Your task to perform on an android device: Search for "lg ultragear" on costco, select the first entry, and add it to the cart. Image 0: 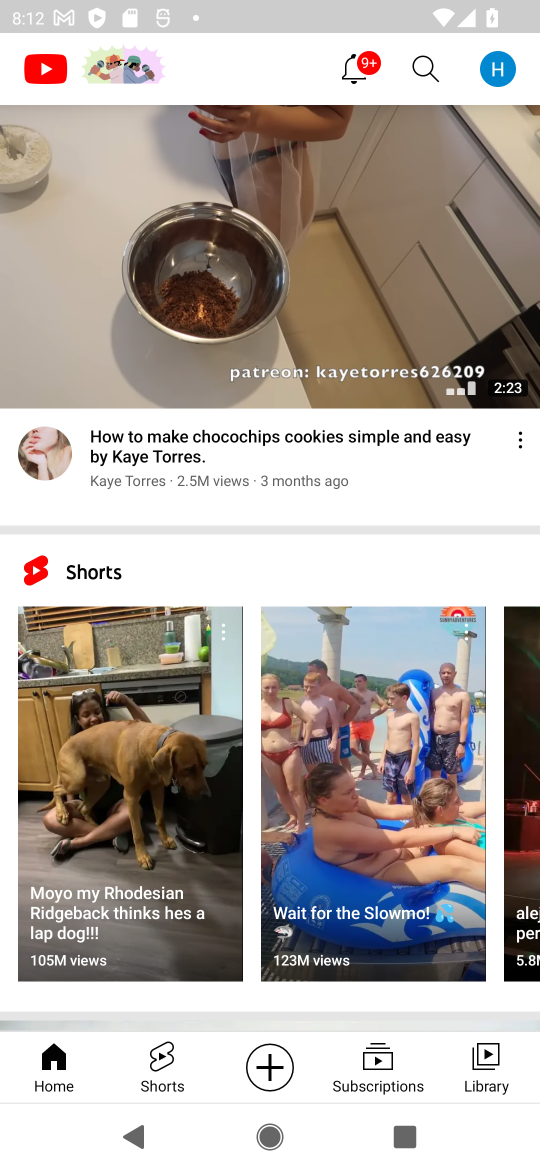
Step 0: press home button
Your task to perform on an android device: Search for "lg ultragear" on costco, select the first entry, and add it to the cart. Image 1: 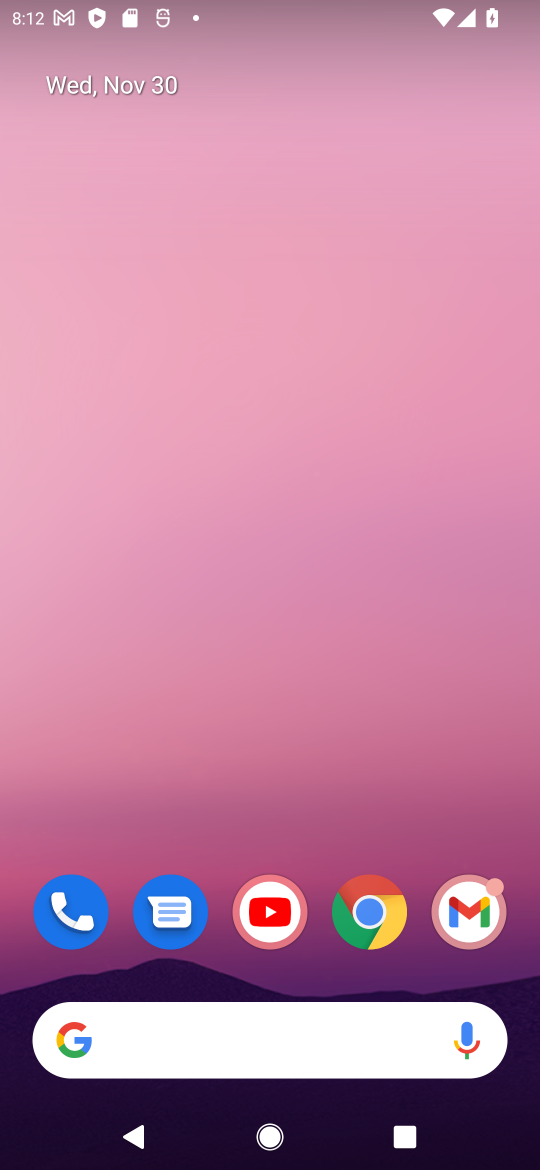
Step 1: click (281, 1010)
Your task to perform on an android device: Search for "lg ultragear" on costco, select the first entry, and add it to the cart. Image 2: 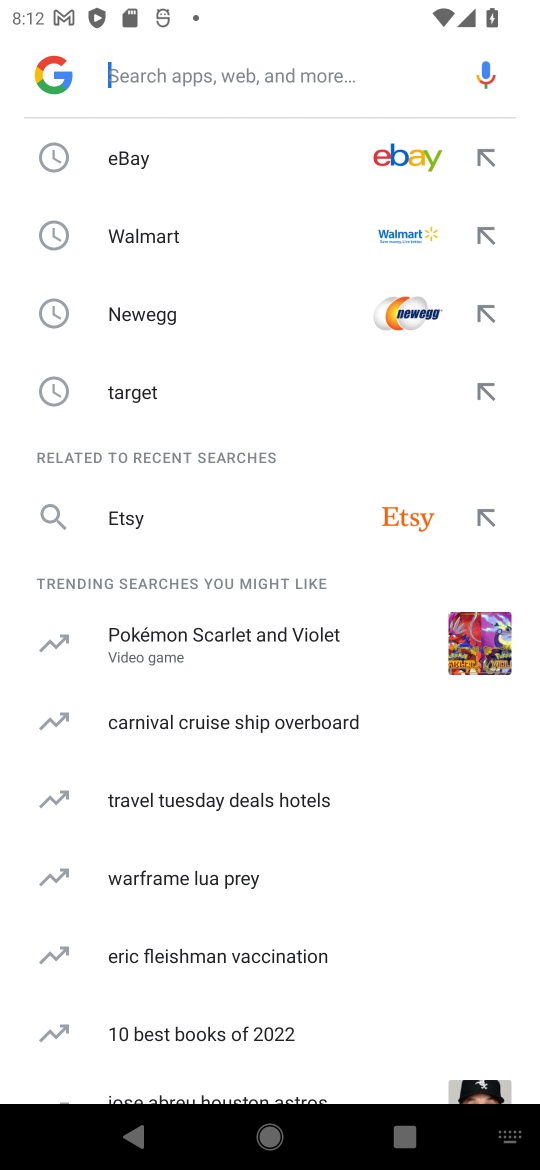
Step 2: type "lg ultragear"
Your task to perform on an android device: Search for "lg ultragear" on costco, select the first entry, and add it to the cart. Image 3: 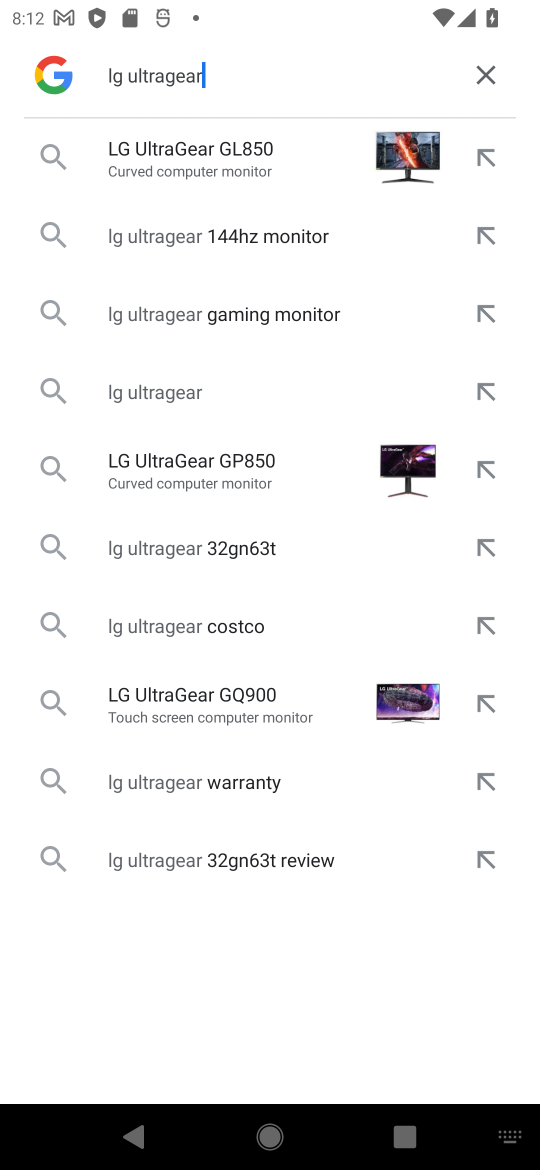
Step 3: click (487, 76)
Your task to perform on an android device: Search for "lg ultragear" on costco, select the first entry, and add it to the cart. Image 4: 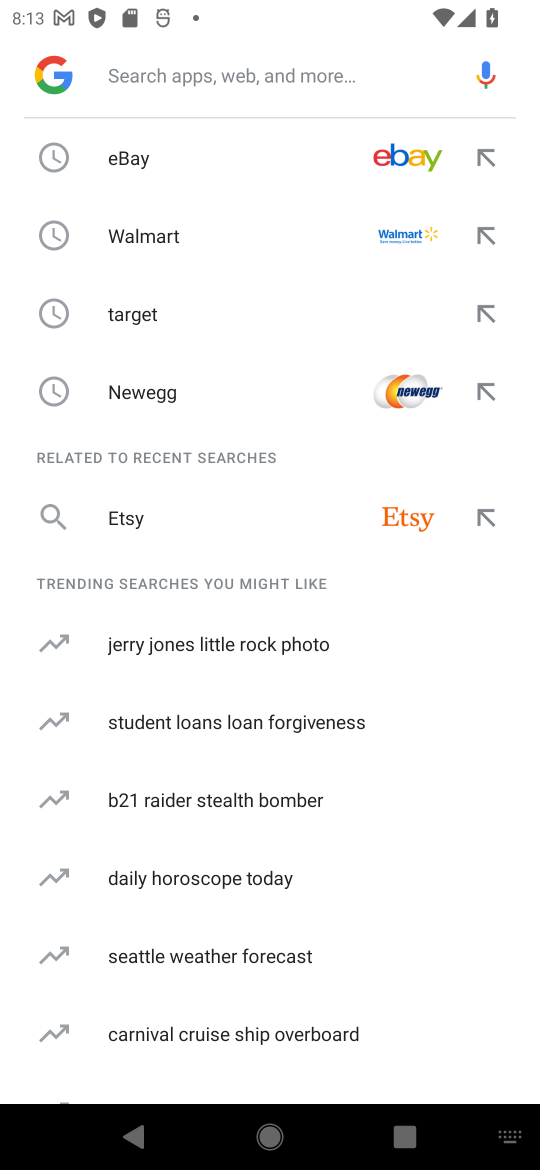
Step 4: type "costco"
Your task to perform on an android device: Search for "lg ultragear" on costco, select the first entry, and add it to the cart. Image 5: 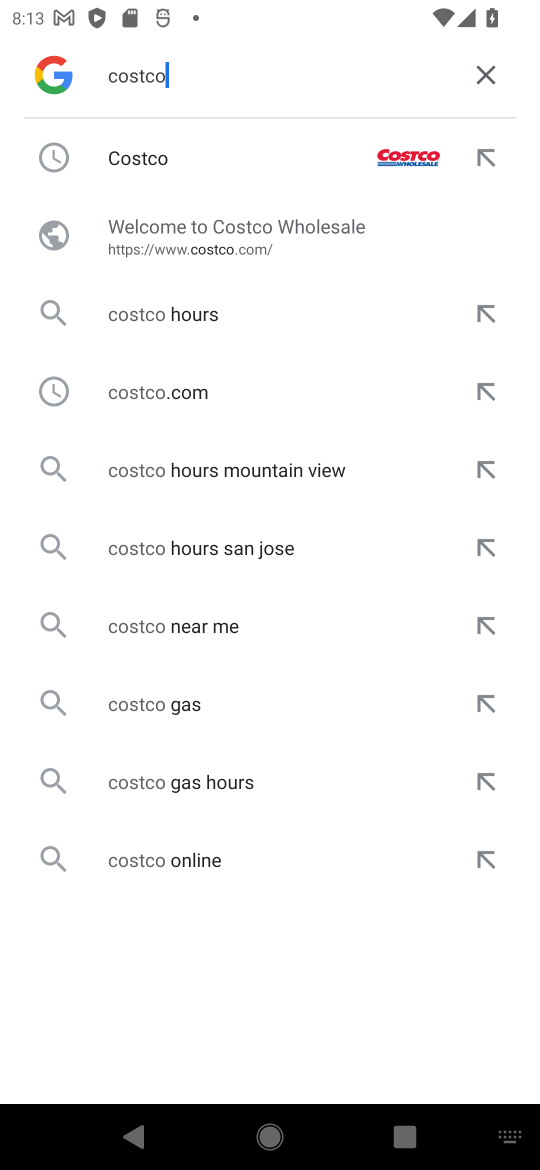
Step 5: click (276, 164)
Your task to perform on an android device: Search for "lg ultragear" on costco, select the first entry, and add it to the cart. Image 6: 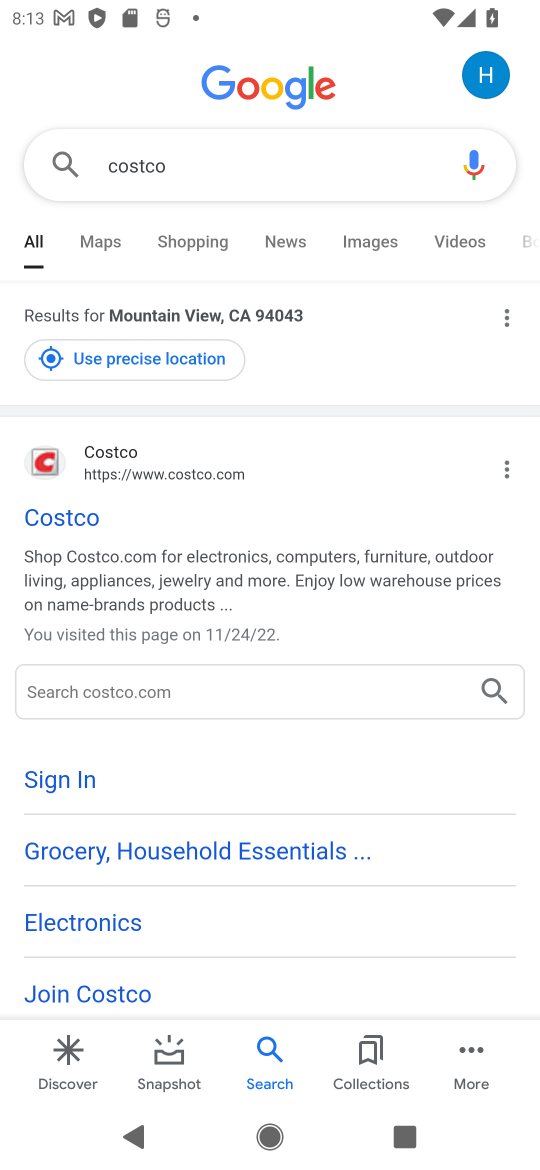
Step 6: click (46, 527)
Your task to perform on an android device: Search for "lg ultragear" on costco, select the first entry, and add it to the cart. Image 7: 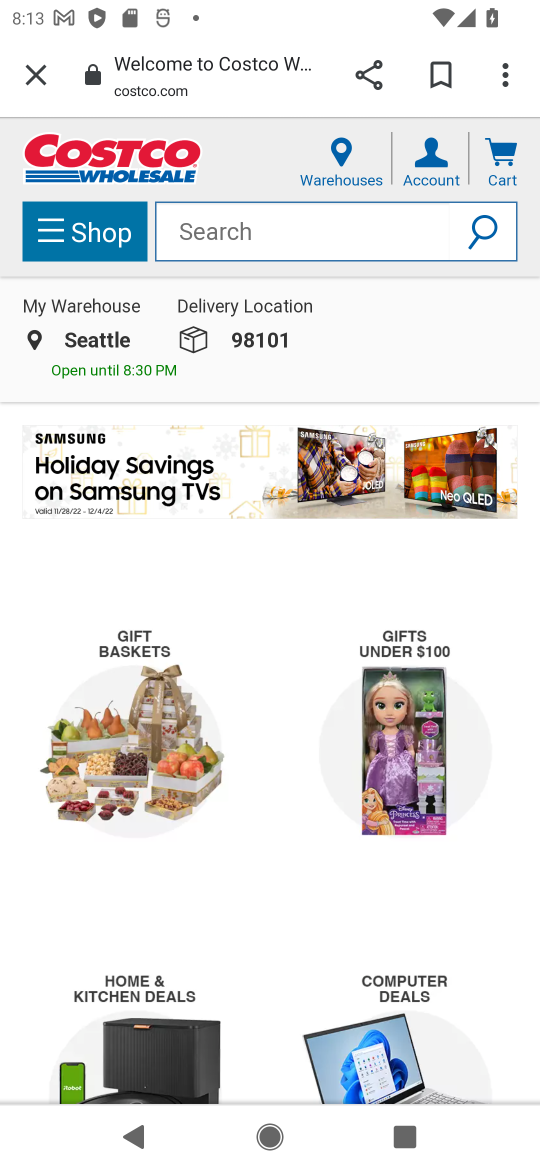
Step 7: click (311, 226)
Your task to perform on an android device: Search for "lg ultragear" on costco, select the first entry, and add it to the cart. Image 8: 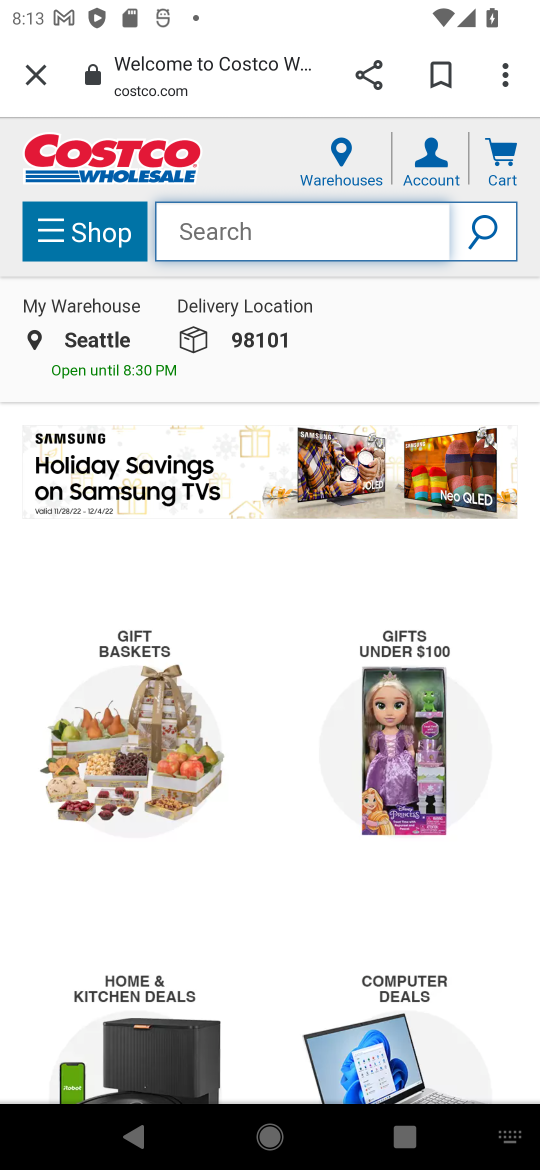
Step 8: type "lg ultragear"
Your task to perform on an android device: Search for "lg ultragear" on costco, select the first entry, and add it to the cart. Image 9: 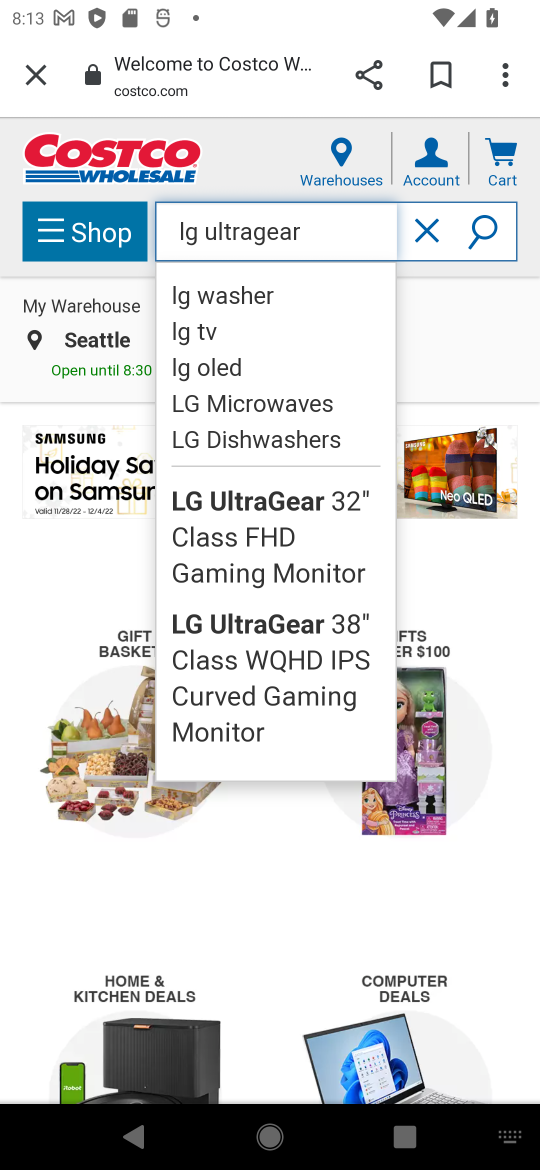
Step 9: click (480, 228)
Your task to perform on an android device: Search for "lg ultragear" on costco, select the first entry, and add it to the cart. Image 10: 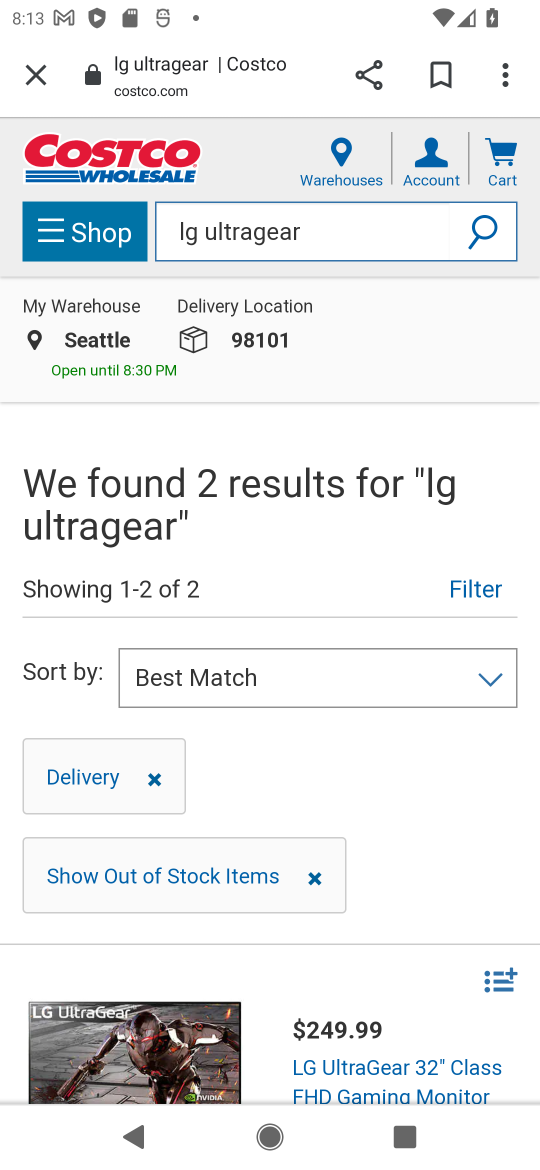
Step 10: drag from (335, 953) to (368, 524)
Your task to perform on an android device: Search for "lg ultragear" on costco, select the first entry, and add it to the cart. Image 11: 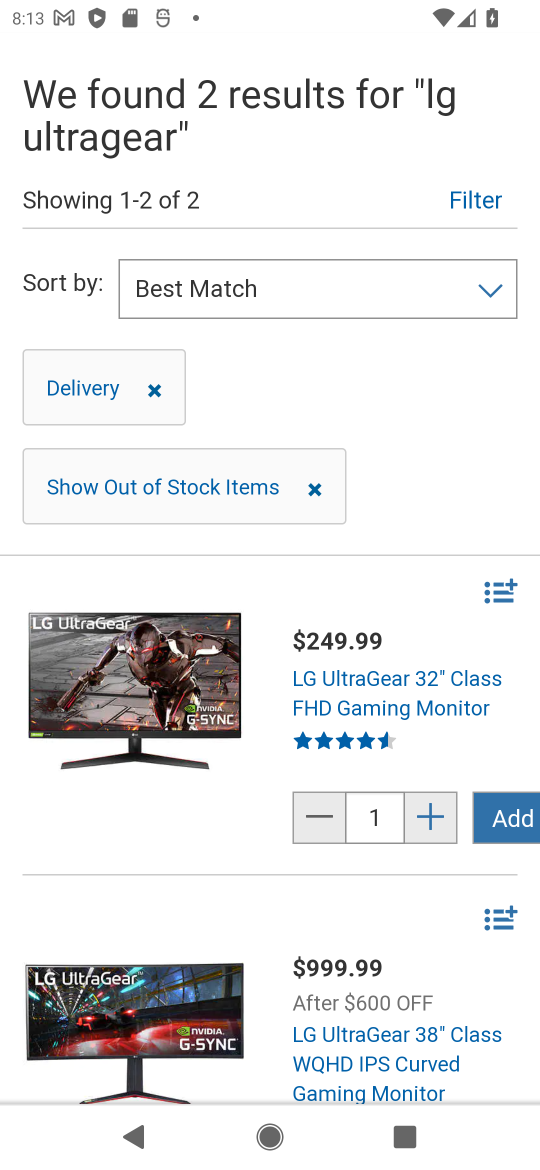
Step 11: click (506, 835)
Your task to perform on an android device: Search for "lg ultragear" on costco, select the first entry, and add it to the cart. Image 12: 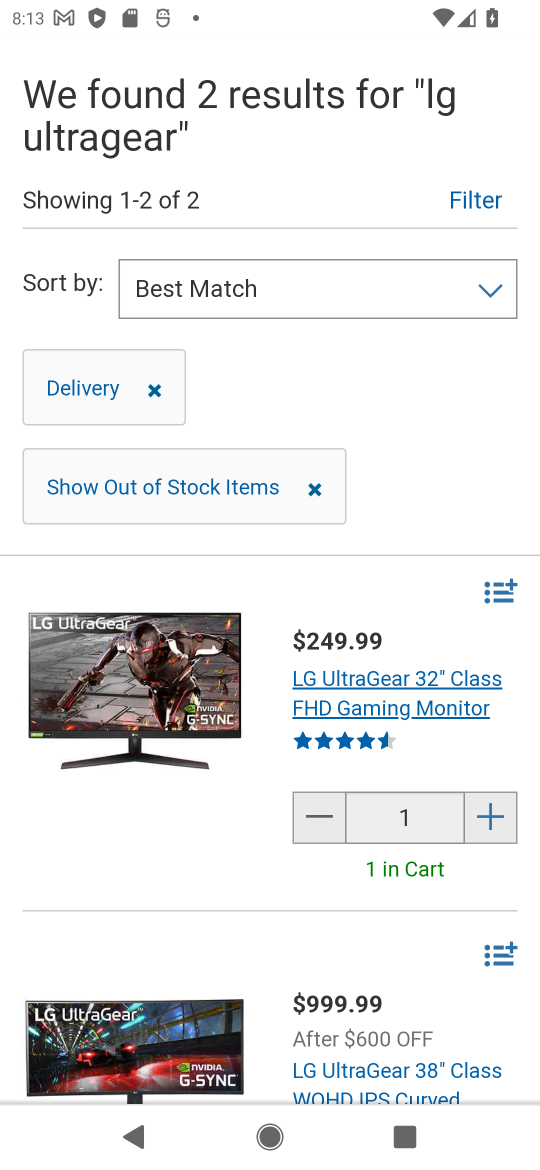
Step 12: task complete